Your task to perform on an android device: change the clock style Image 0: 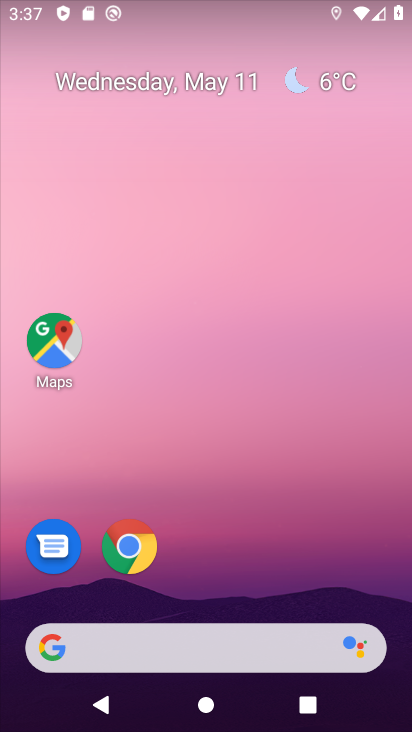
Step 0: click (358, 218)
Your task to perform on an android device: change the clock style Image 1: 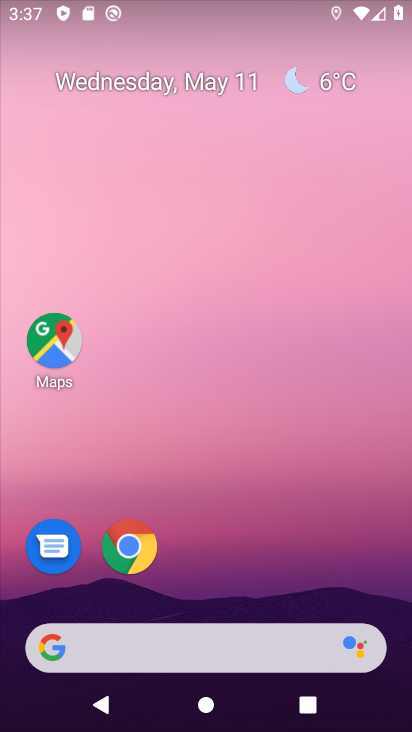
Step 1: drag from (249, 617) to (385, 204)
Your task to perform on an android device: change the clock style Image 2: 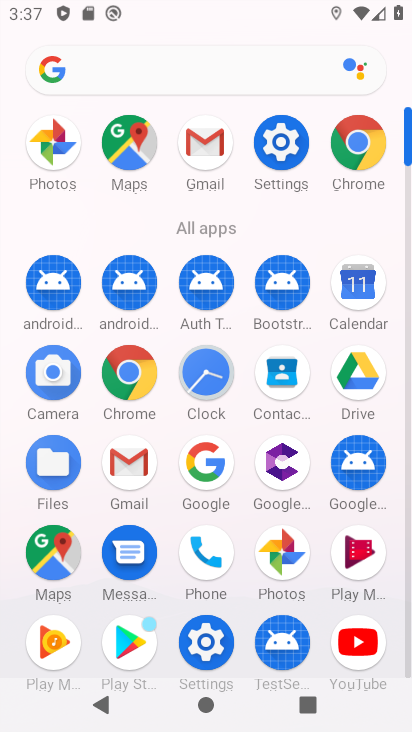
Step 2: click (223, 376)
Your task to perform on an android device: change the clock style Image 3: 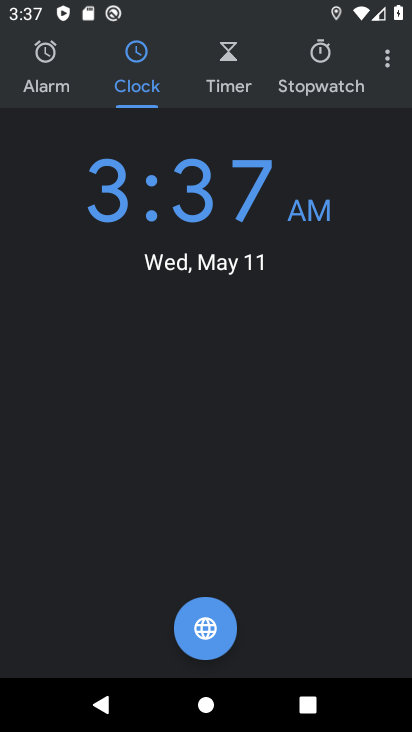
Step 3: click (393, 58)
Your task to perform on an android device: change the clock style Image 4: 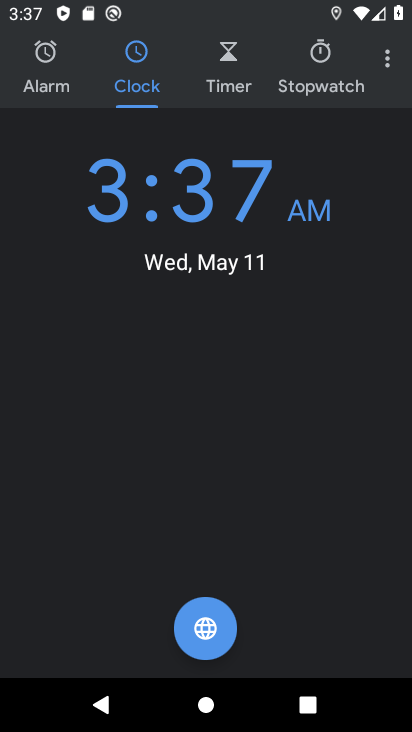
Step 4: click (390, 70)
Your task to perform on an android device: change the clock style Image 5: 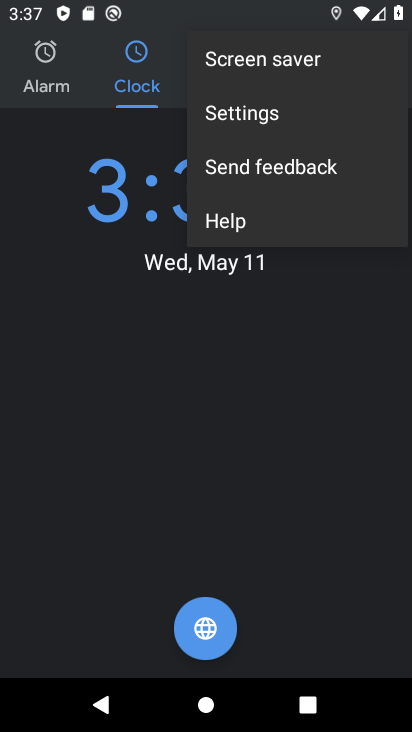
Step 5: click (315, 109)
Your task to perform on an android device: change the clock style Image 6: 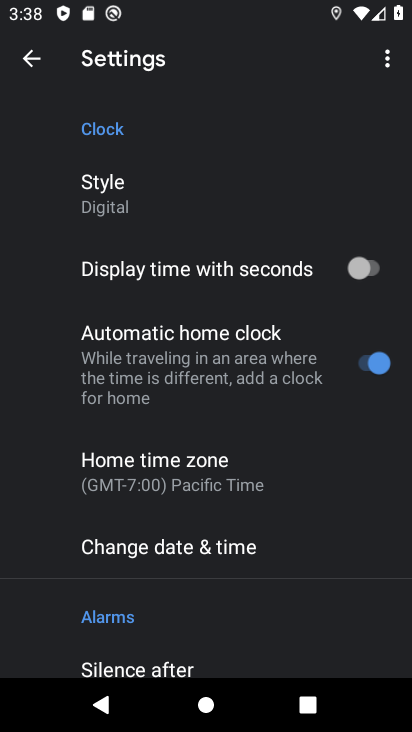
Step 6: click (235, 215)
Your task to perform on an android device: change the clock style Image 7: 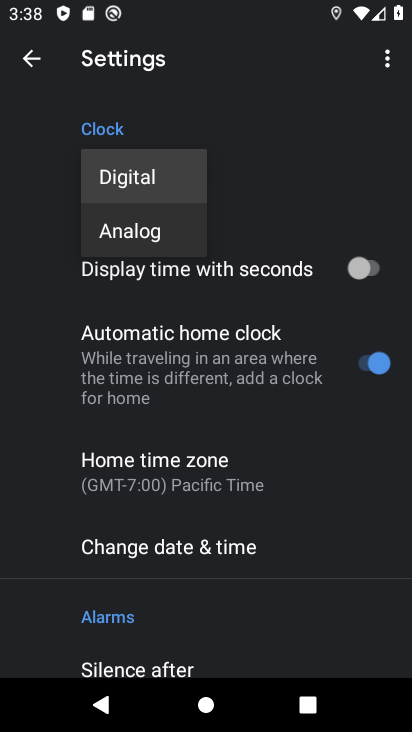
Step 7: click (158, 233)
Your task to perform on an android device: change the clock style Image 8: 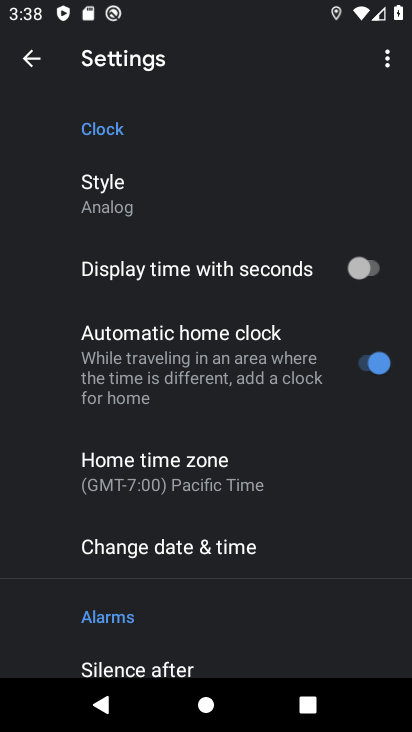
Step 8: task complete